Your task to perform on an android device: delete location history Image 0: 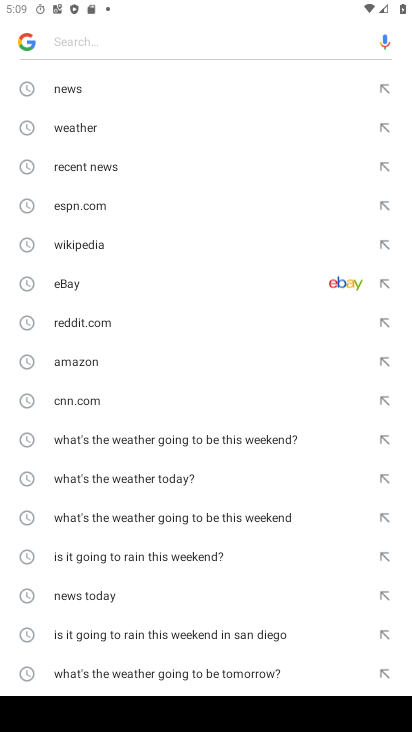
Step 0: press home button
Your task to perform on an android device: delete location history Image 1: 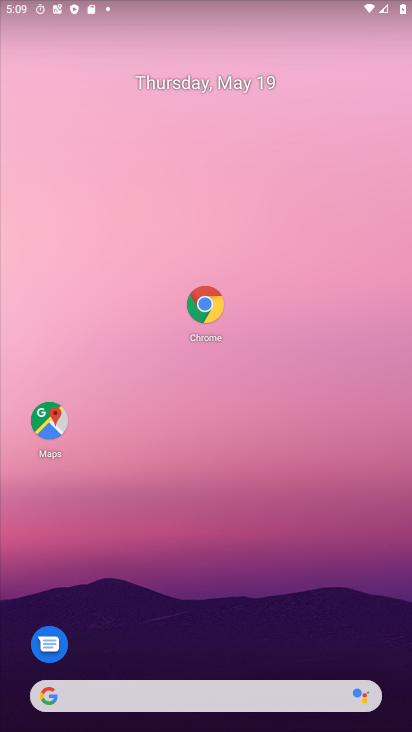
Step 1: drag from (199, 658) to (212, 323)
Your task to perform on an android device: delete location history Image 2: 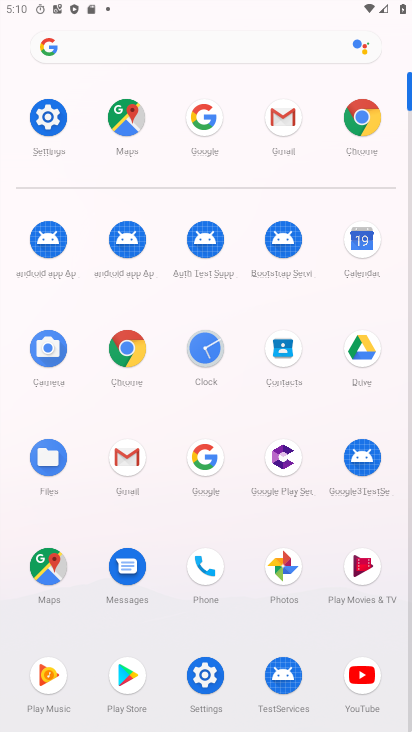
Step 2: click (211, 661)
Your task to perform on an android device: delete location history Image 3: 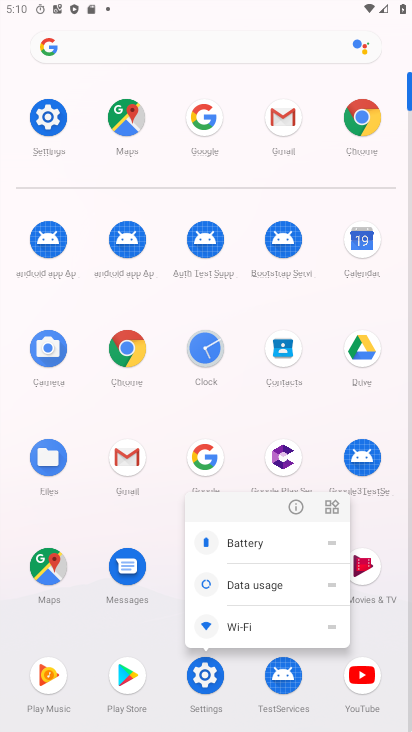
Step 3: click (213, 674)
Your task to perform on an android device: delete location history Image 4: 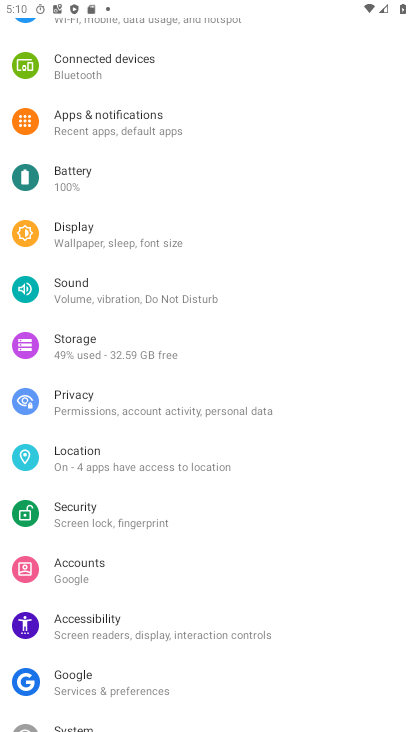
Step 4: click (73, 462)
Your task to perform on an android device: delete location history Image 5: 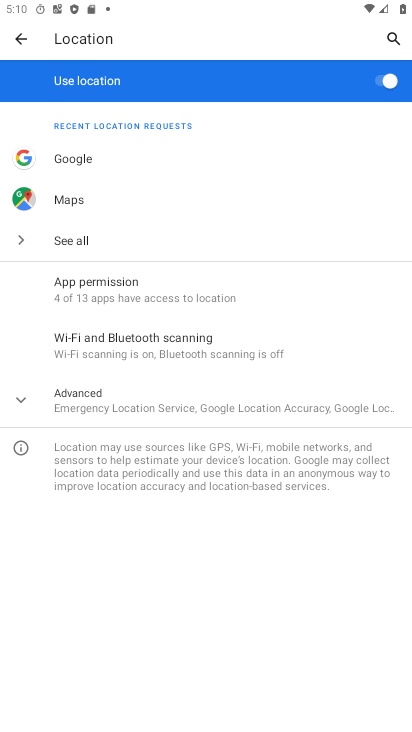
Step 5: click (88, 397)
Your task to perform on an android device: delete location history Image 6: 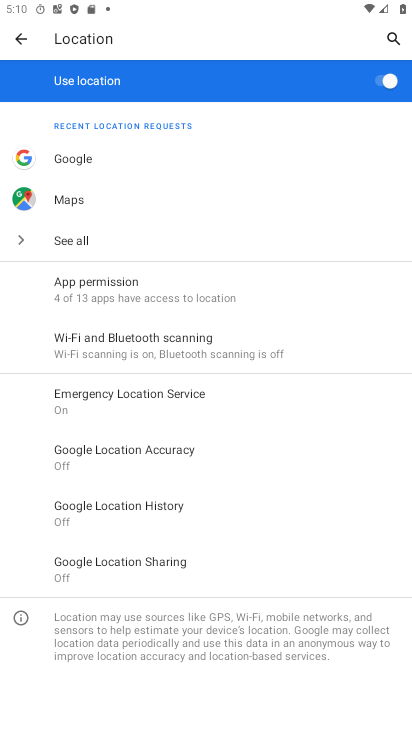
Step 6: click (129, 510)
Your task to perform on an android device: delete location history Image 7: 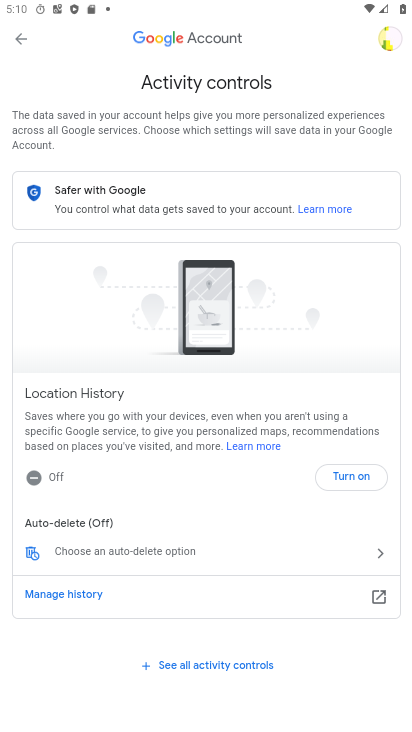
Step 7: click (97, 543)
Your task to perform on an android device: delete location history Image 8: 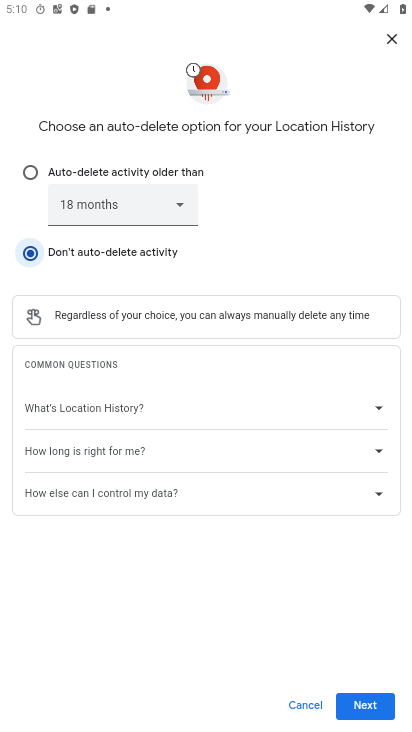
Step 8: click (386, 704)
Your task to perform on an android device: delete location history Image 9: 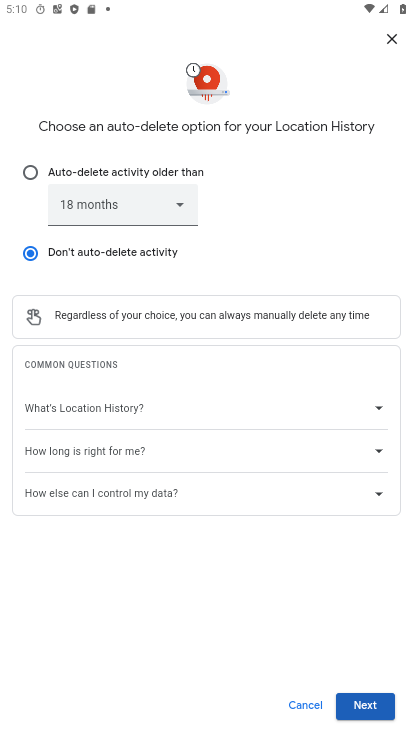
Step 9: click (369, 708)
Your task to perform on an android device: delete location history Image 10: 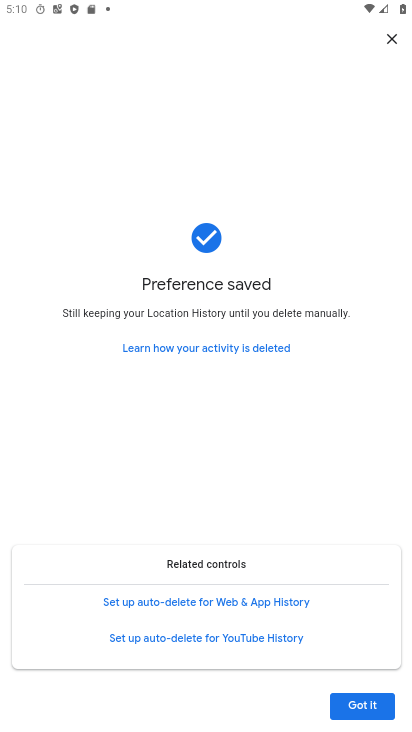
Step 10: click (359, 710)
Your task to perform on an android device: delete location history Image 11: 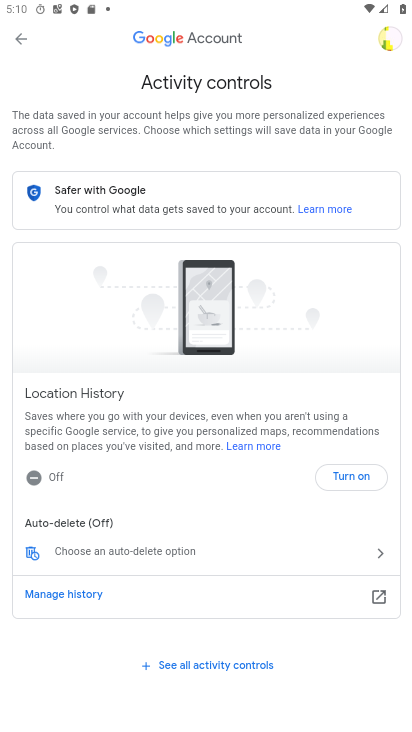
Step 11: task complete